Your task to perform on an android device: Open the calendar and show me this week's events Image 0: 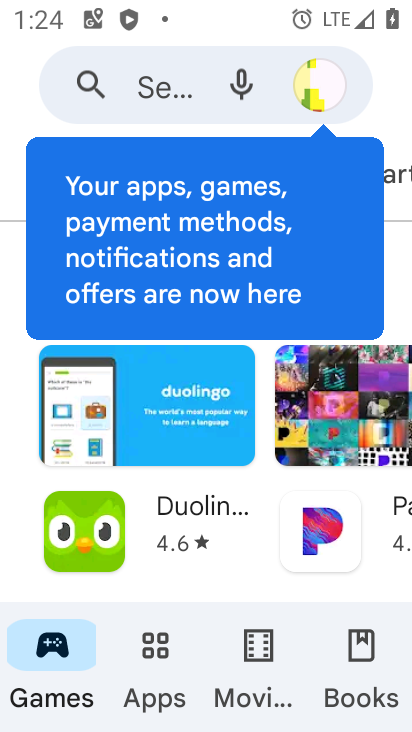
Step 0: press home button
Your task to perform on an android device: Open the calendar and show me this week's events Image 1: 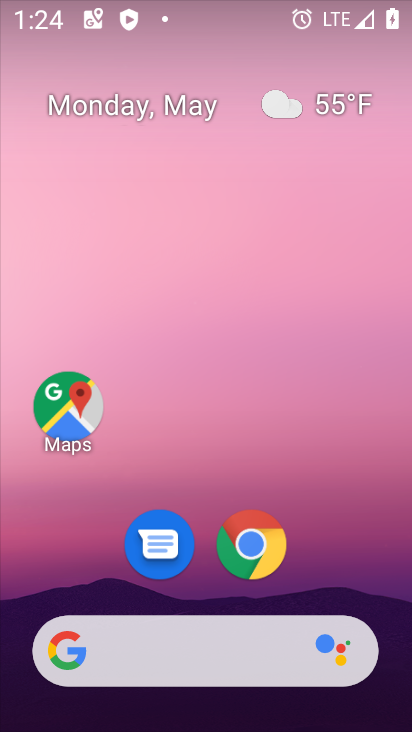
Step 1: drag from (403, 663) to (299, 157)
Your task to perform on an android device: Open the calendar and show me this week's events Image 2: 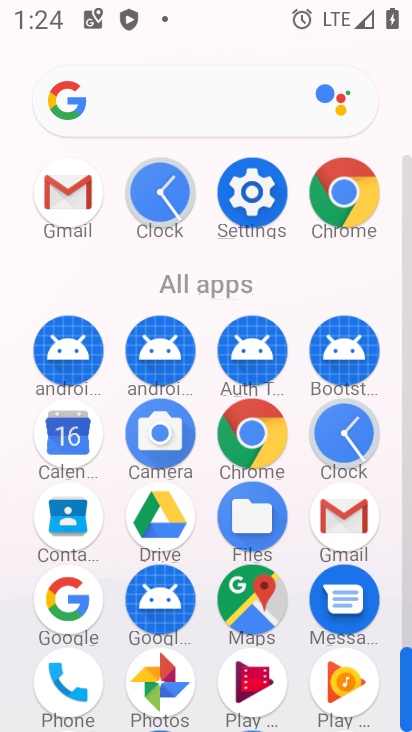
Step 2: click (405, 637)
Your task to perform on an android device: Open the calendar and show me this week's events Image 3: 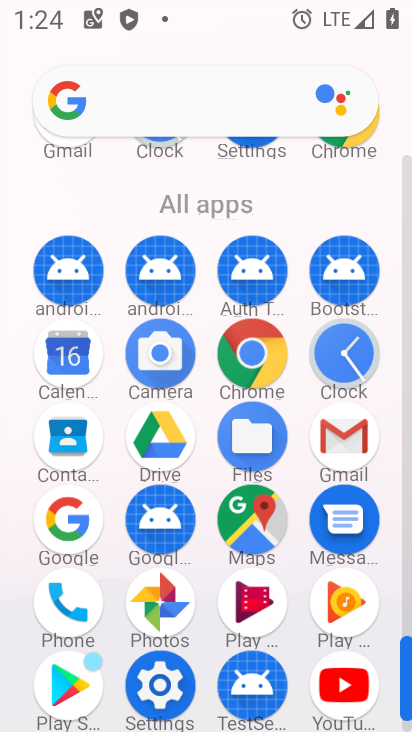
Step 3: click (64, 354)
Your task to perform on an android device: Open the calendar and show me this week's events Image 4: 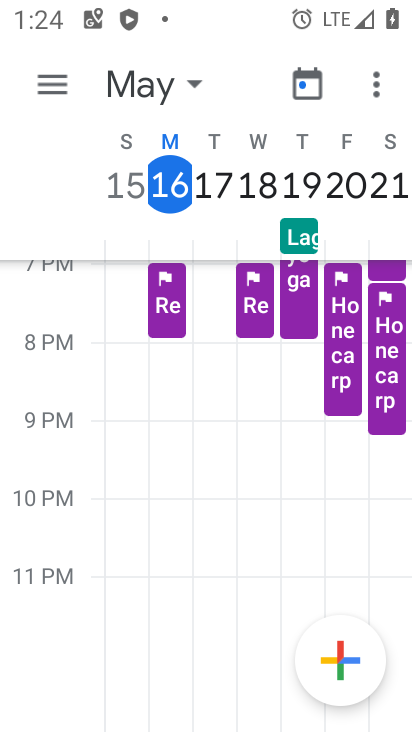
Step 4: click (53, 83)
Your task to perform on an android device: Open the calendar and show me this week's events Image 5: 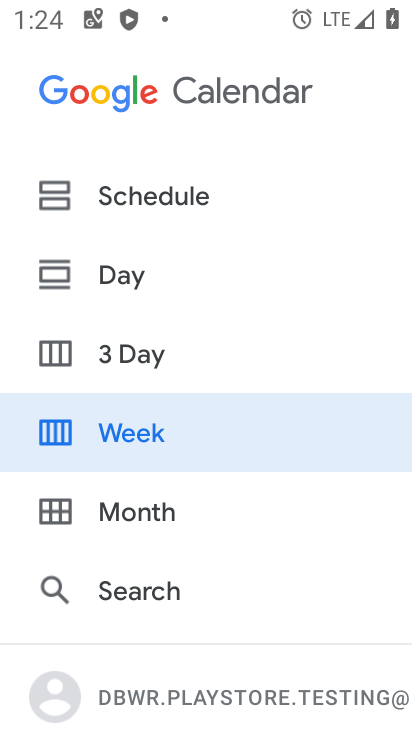
Step 5: click (143, 423)
Your task to perform on an android device: Open the calendar and show me this week's events Image 6: 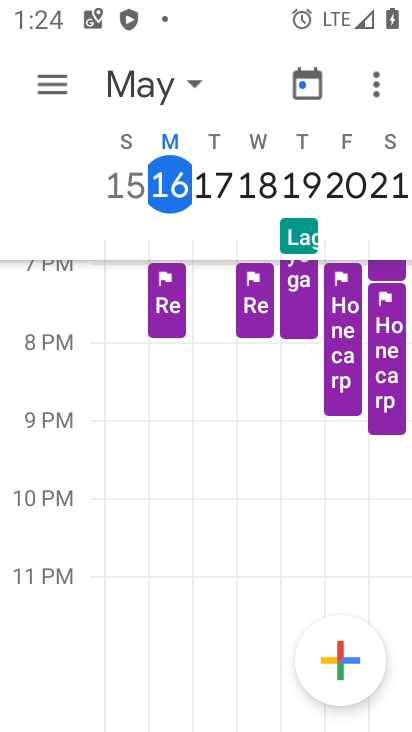
Step 6: task complete